Your task to perform on an android device: refresh tabs in the chrome app Image 0: 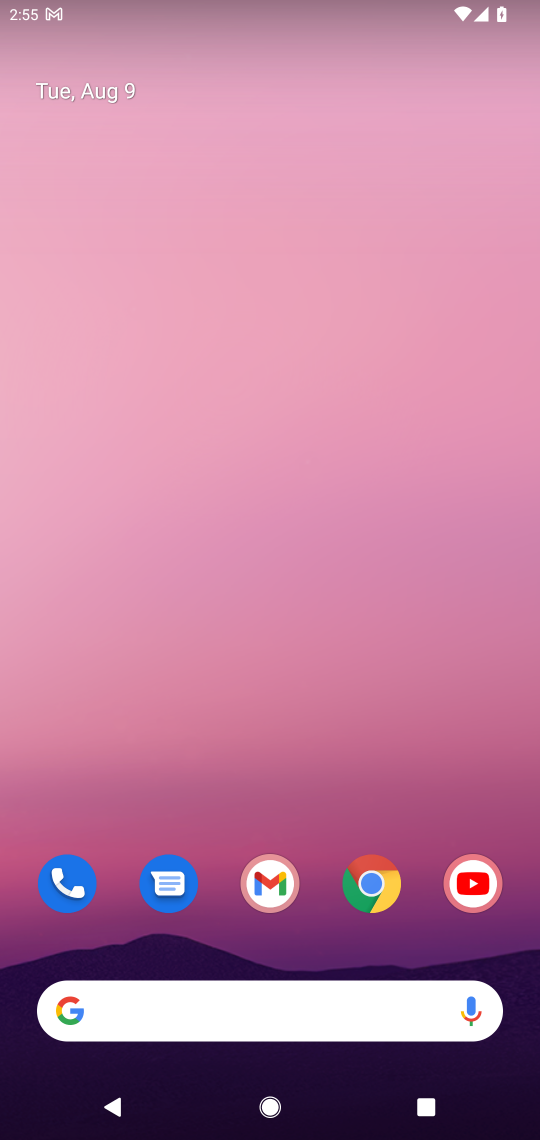
Step 0: click (372, 881)
Your task to perform on an android device: refresh tabs in the chrome app Image 1: 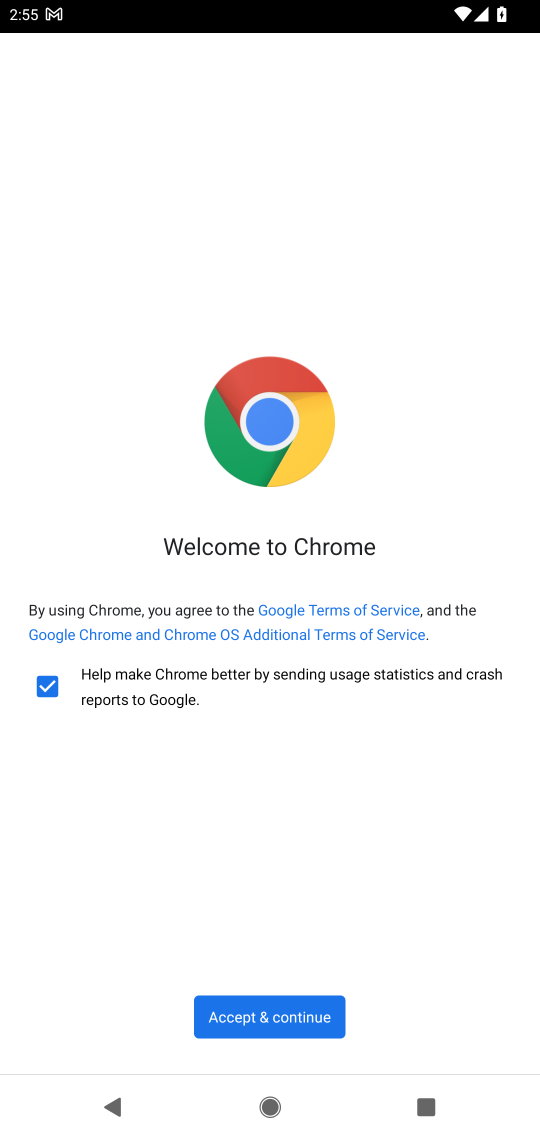
Step 1: click (256, 1018)
Your task to perform on an android device: refresh tabs in the chrome app Image 2: 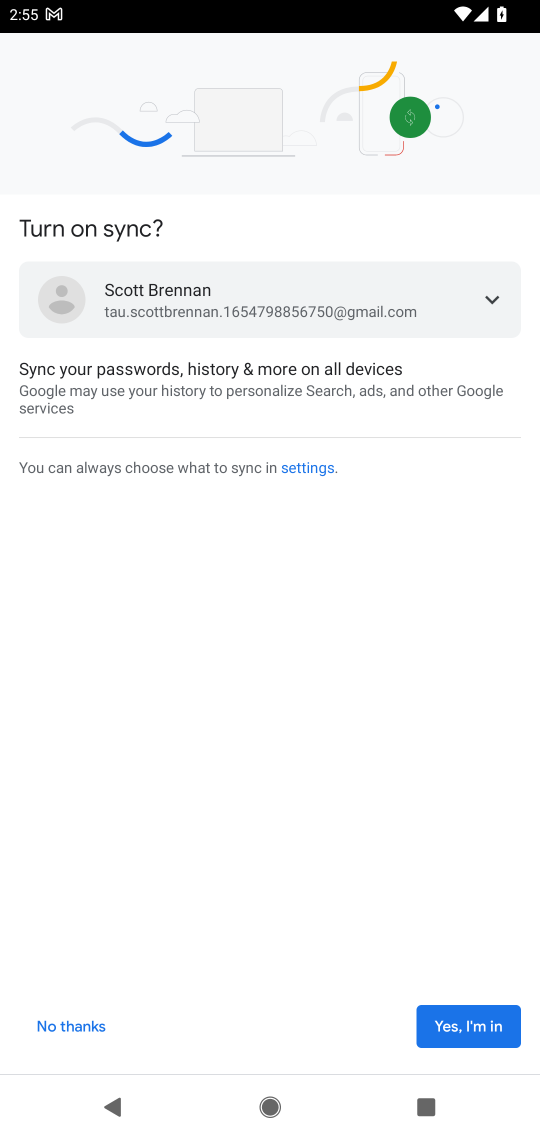
Step 2: click (476, 1025)
Your task to perform on an android device: refresh tabs in the chrome app Image 3: 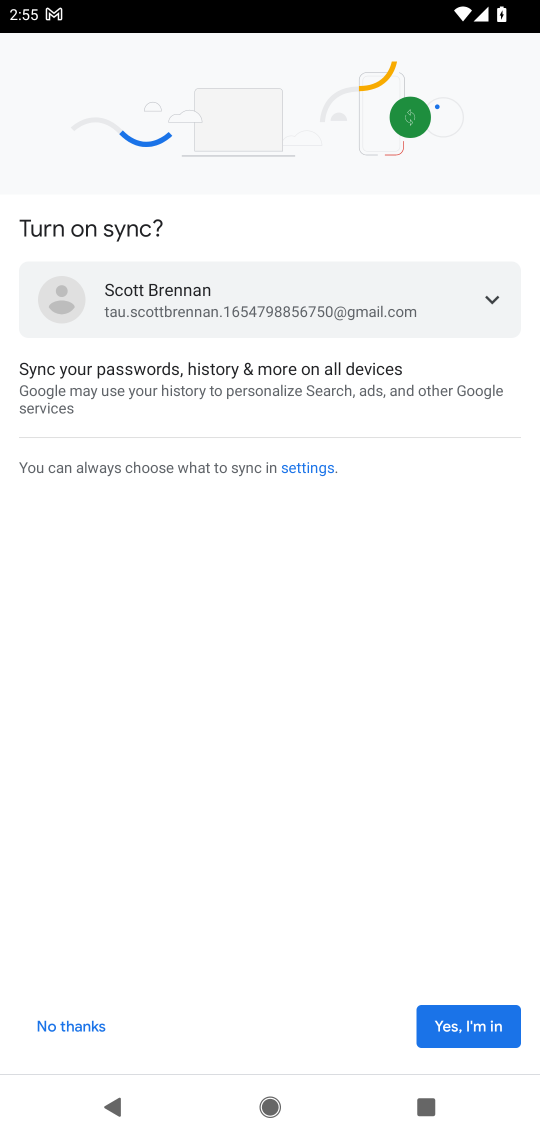
Step 3: click (476, 1025)
Your task to perform on an android device: refresh tabs in the chrome app Image 4: 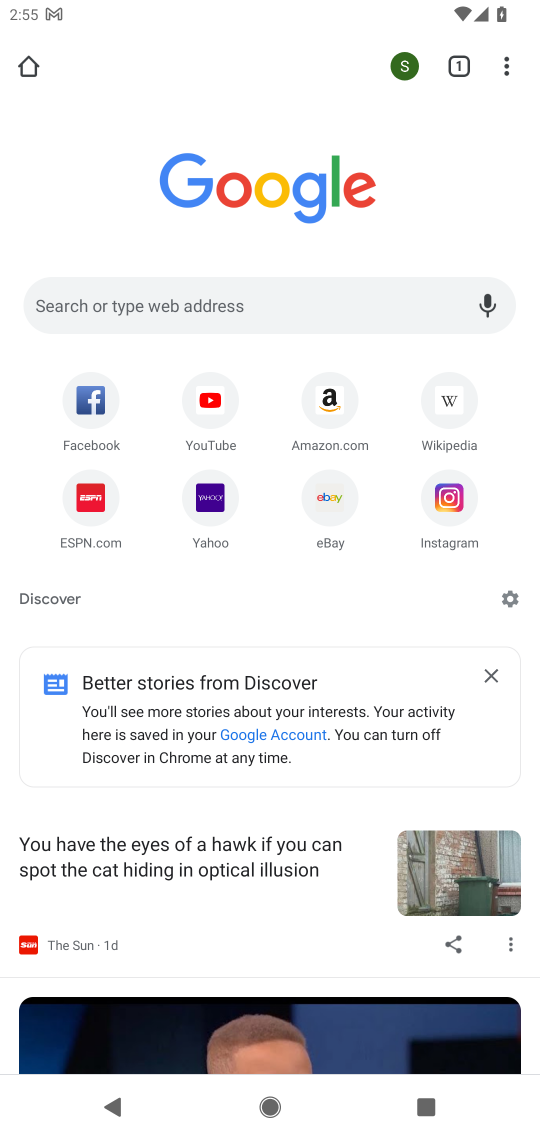
Step 4: click (499, 69)
Your task to perform on an android device: refresh tabs in the chrome app Image 5: 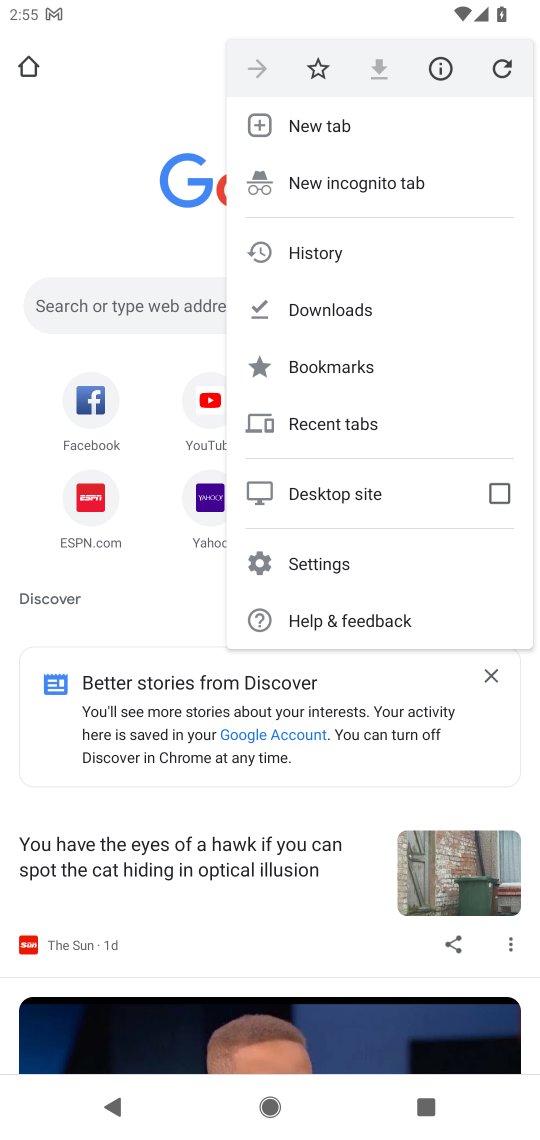
Step 5: click (501, 65)
Your task to perform on an android device: refresh tabs in the chrome app Image 6: 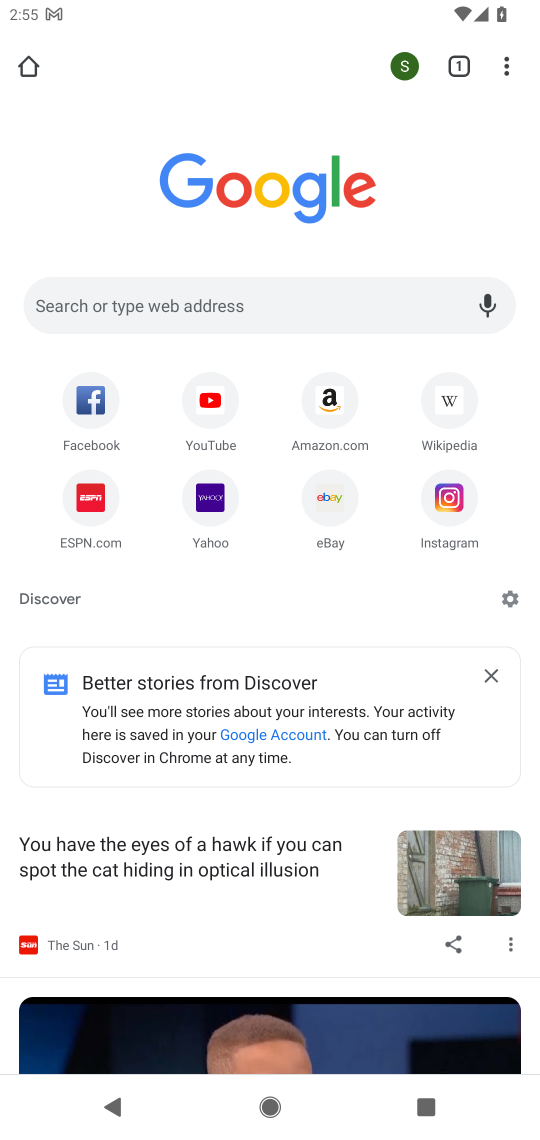
Step 6: task complete